Your task to perform on an android device: see sites visited before in the chrome app Image 0: 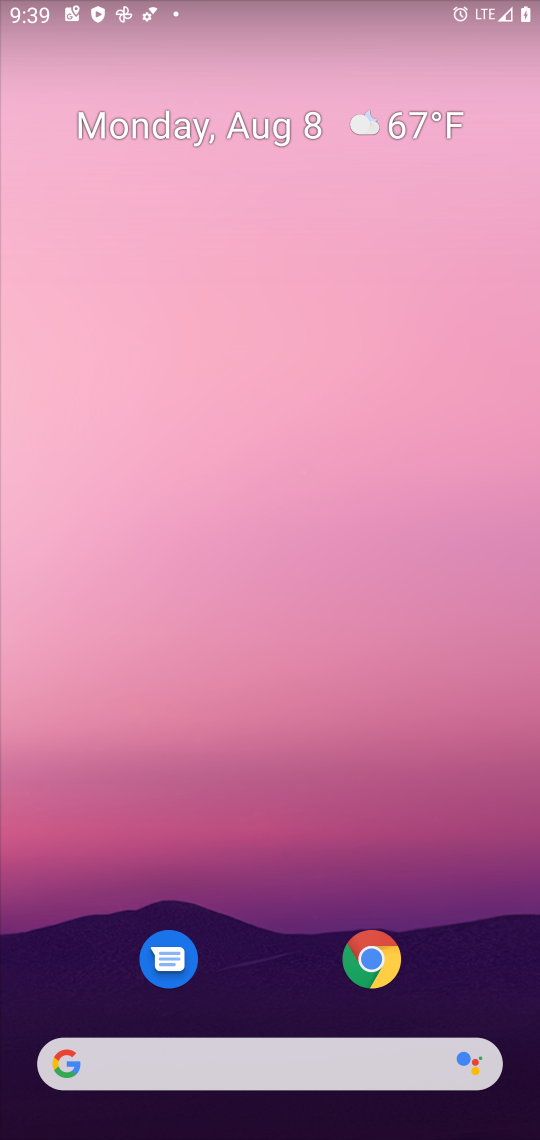
Step 0: drag from (517, 1020) to (288, 85)
Your task to perform on an android device: see sites visited before in the chrome app Image 1: 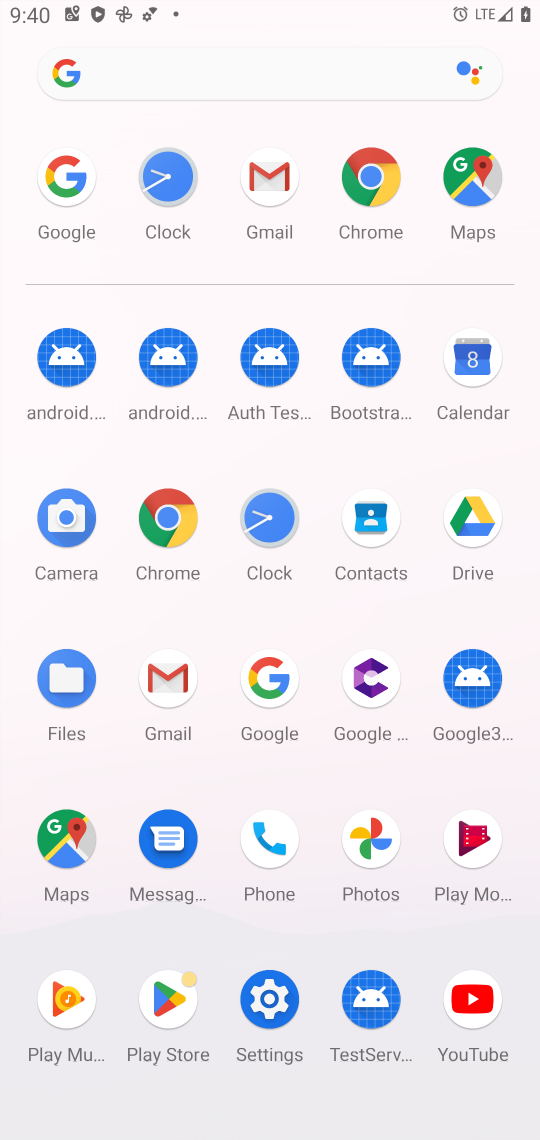
Step 1: click (169, 537)
Your task to perform on an android device: see sites visited before in the chrome app Image 2: 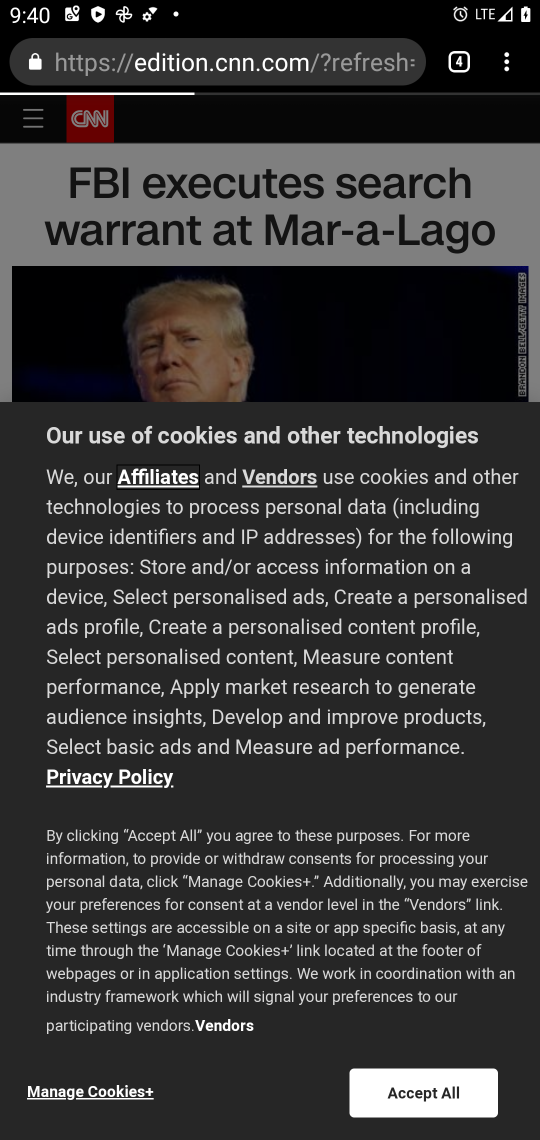
Step 2: task complete